Your task to perform on an android device: Go to wifi settings Image 0: 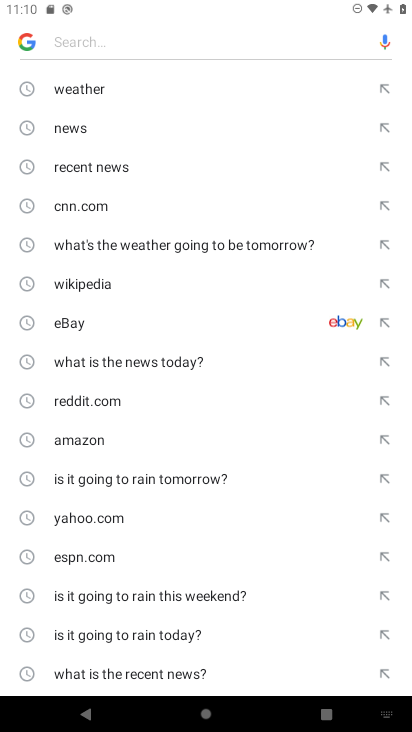
Step 0: press home button
Your task to perform on an android device: Go to wifi settings Image 1: 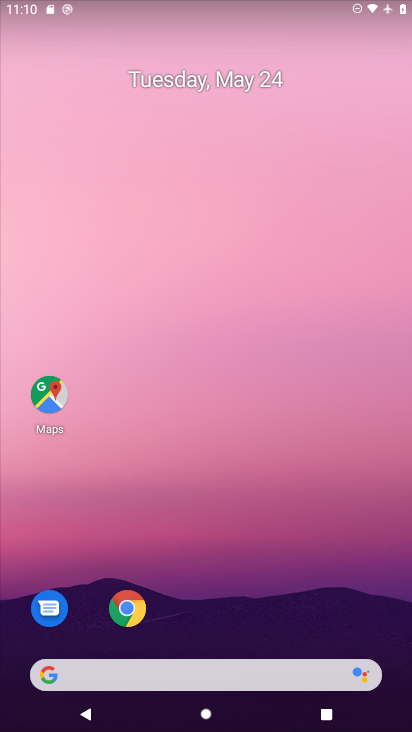
Step 1: drag from (356, 605) to (328, 5)
Your task to perform on an android device: Go to wifi settings Image 2: 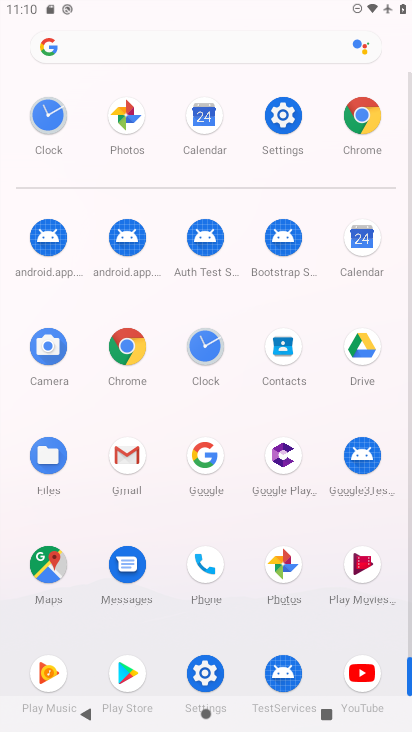
Step 2: click (204, 673)
Your task to perform on an android device: Go to wifi settings Image 3: 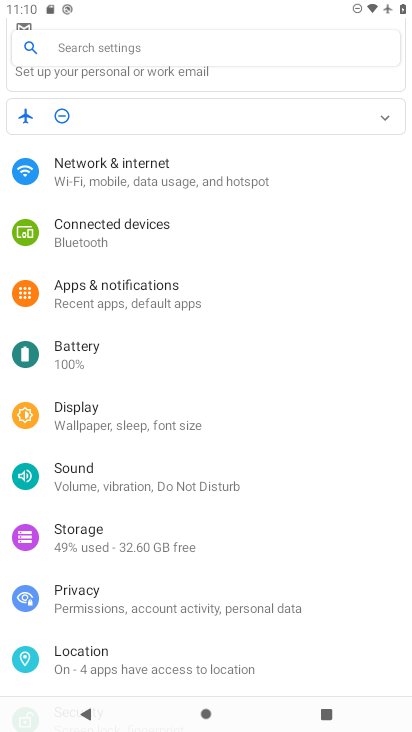
Step 3: click (85, 160)
Your task to perform on an android device: Go to wifi settings Image 4: 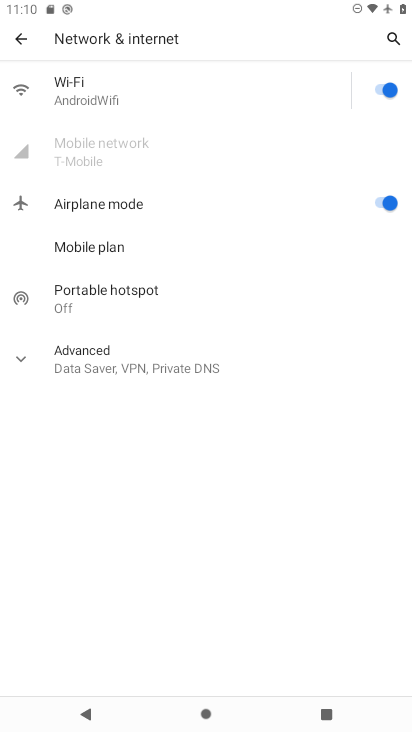
Step 4: click (65, 102)
Your task to perform on an android device: Go to wifi settings Image 5: 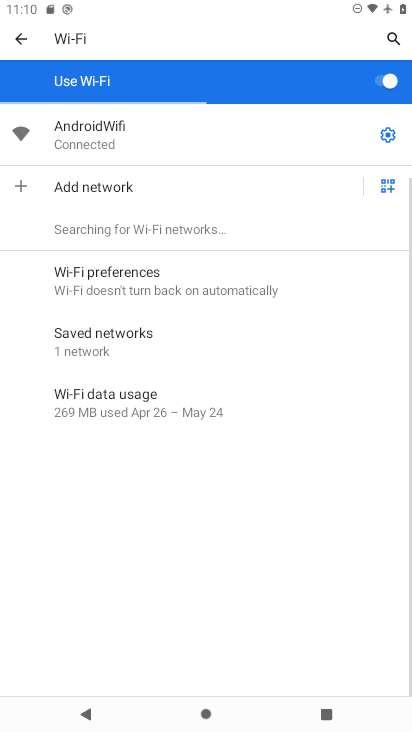
Step 5: click (388, 136)
Your task to perform on an android device: Go to wifi settings Image 6: 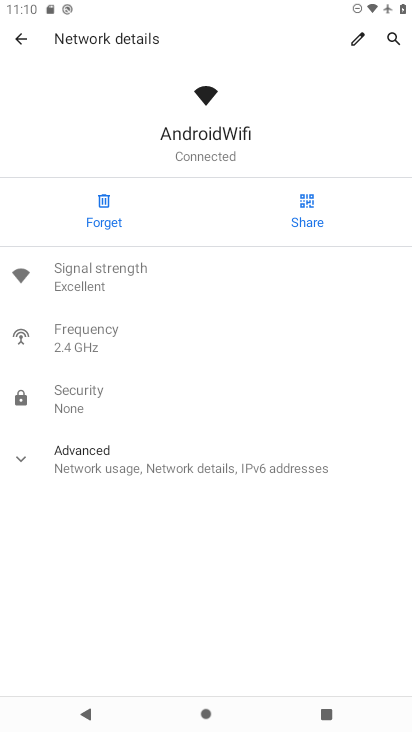
Step 6: click (23, 460)
Your task to perform on an android device: Go to wifi settings Image 7: 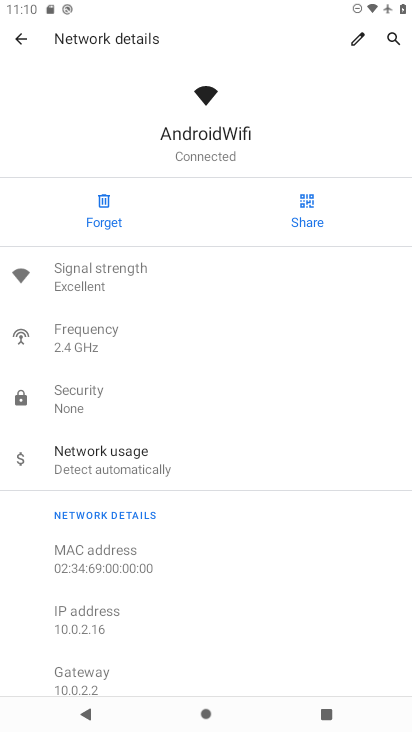
Step 7: task complete